Your task to perform on an android device: Open settings on Google Maps Image 0: 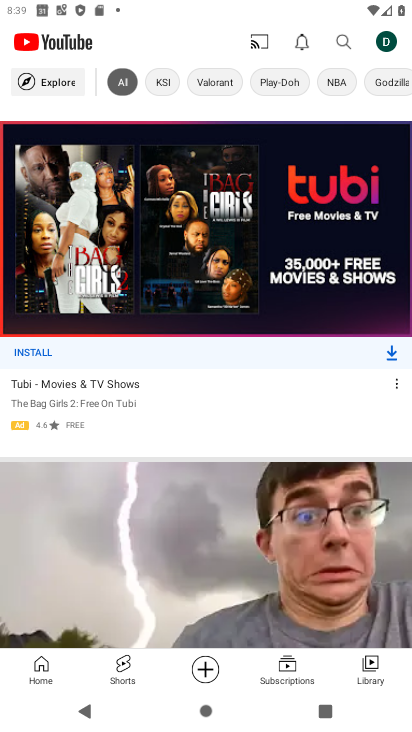
Step 0: press home button
Your task to perform on an android device: Open settings on Google Maps Image 1: 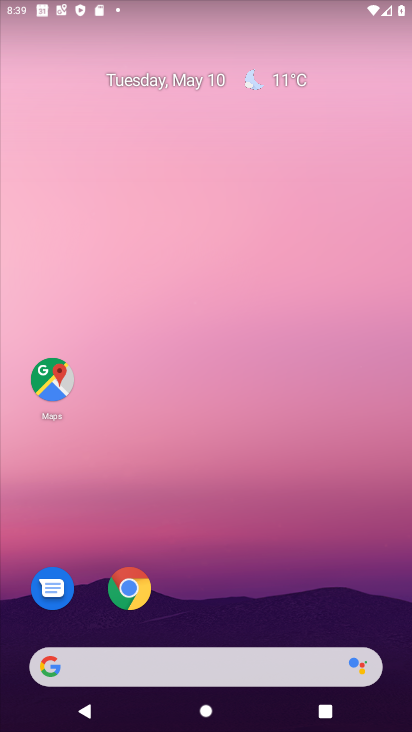
Step 1: click (53, 375)
Your task to perform on an android device: Open settings on Google Maps Image 2: 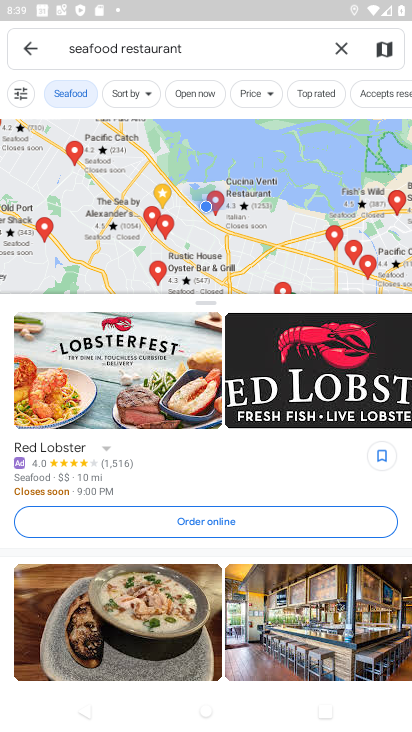
Step 2: click (30, 59)
Your task to perform on an android device: Open settings on Google Maps Image 3: 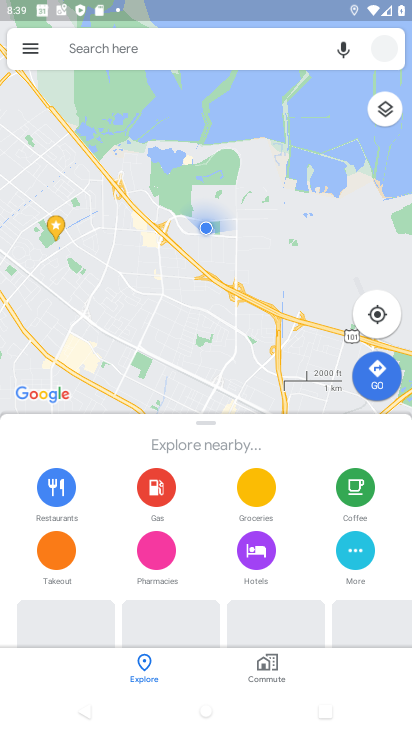
Step 3: click (32, 56)
Your task to perform on an android device: Open settings on Google Maps Image 4: 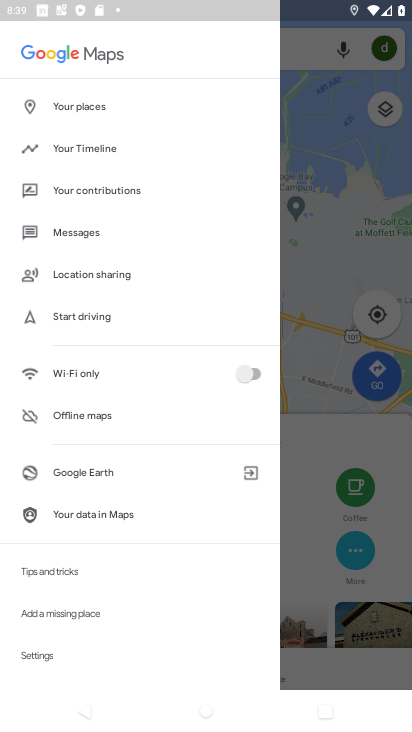
Step 4: click (50, 660)
Your task to perform on an android device: Open settings on Google Maps Image 5: 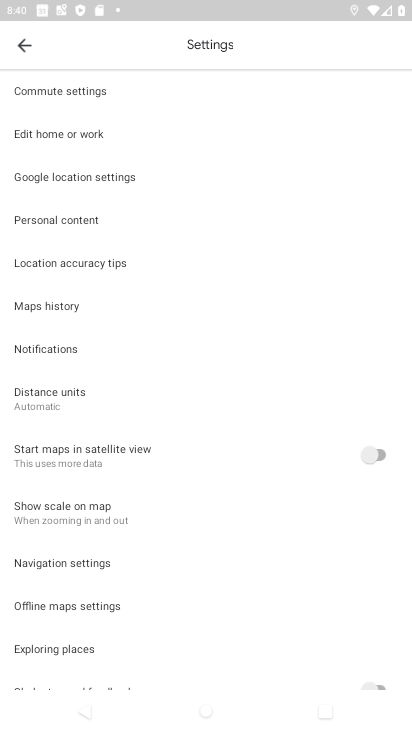
Step 5: task complete